Your task to perform on an android device: see tabs open on other devices in the chrome app Image 0: 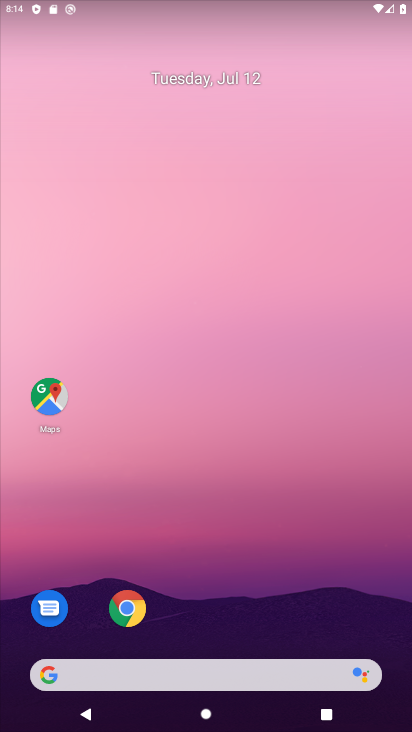
Step 0: click (135, 603)
Your task to perform on an android device: see tabs open on other devices in the chrome app Image 1: 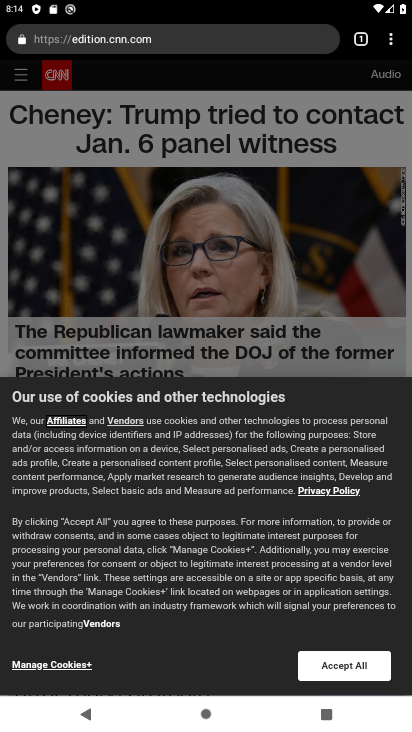
Step 1: click (397, 45)
Your task to perform on an android device: see tabs open on other devices in the chrome app Image 2: 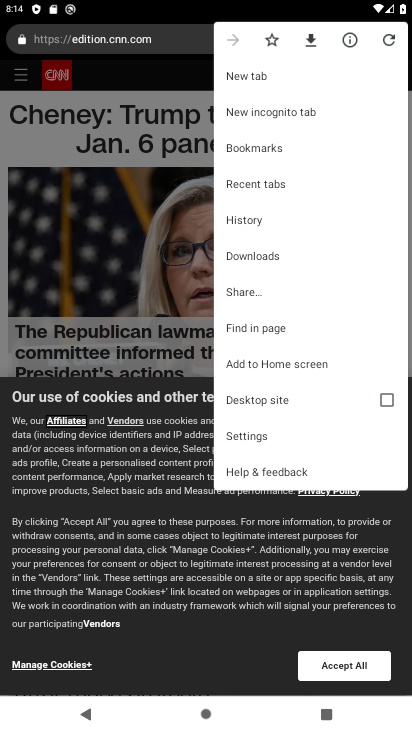
Step 2: click (291, 179)
Your task to perform on an android device: see tabs open on other devices in the chrome app Image 3: 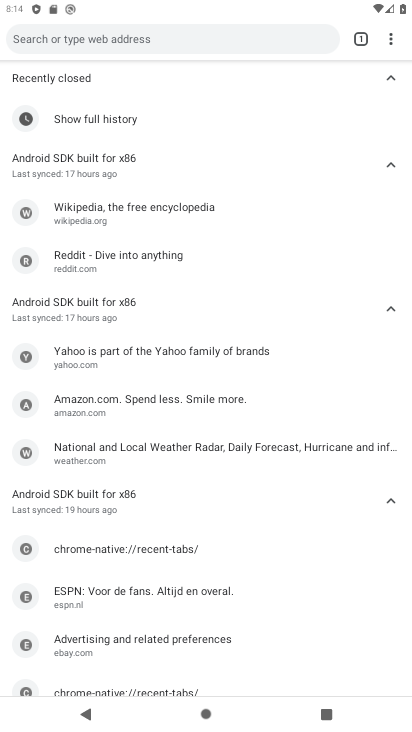
Step 3: task complete